Your task to perform on an android device: set default search engine in the chrome app Image 0: 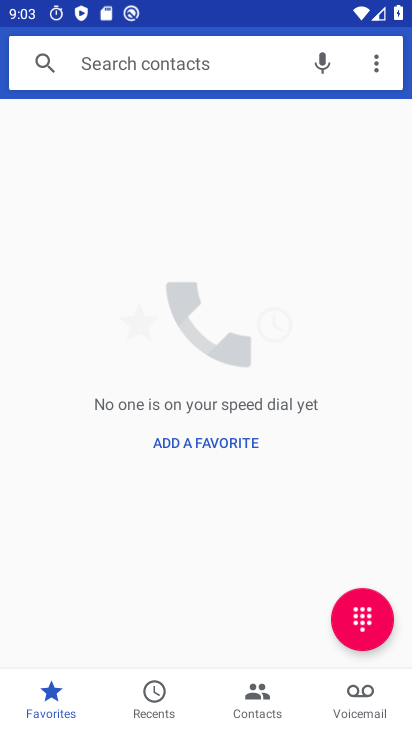
Step 0: press home button
Your task to perform on an android device: set default search engine in the chrome app Image 1: 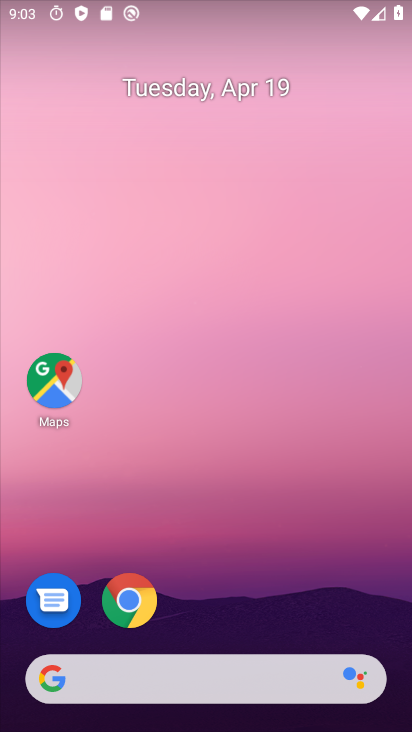
Step 1: click (139, 601)
Your task to perform on an android device: set default search engine in the chrome app Image 2: 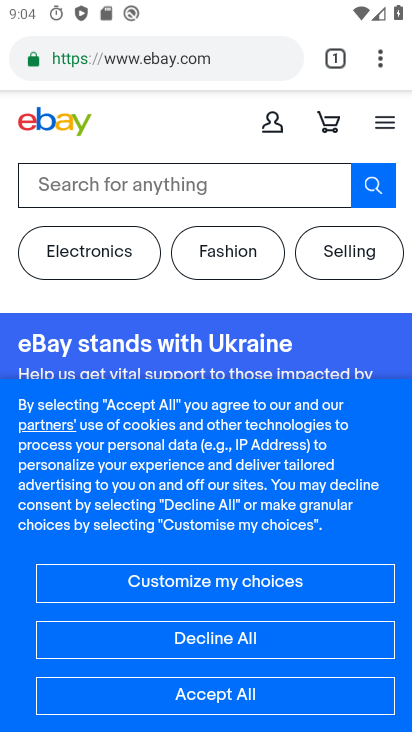
Step 2: click (377, 49)
Your task to perform on an android device: set default search engine in the chrome app Image 3: 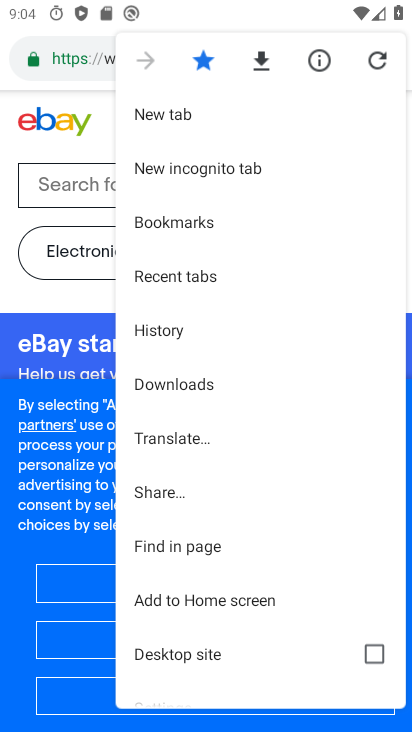
Step 3: drag from (169, 615) to (252, 125)
Your task to perform on an android device: set default search engine in the chrome app Image 4: 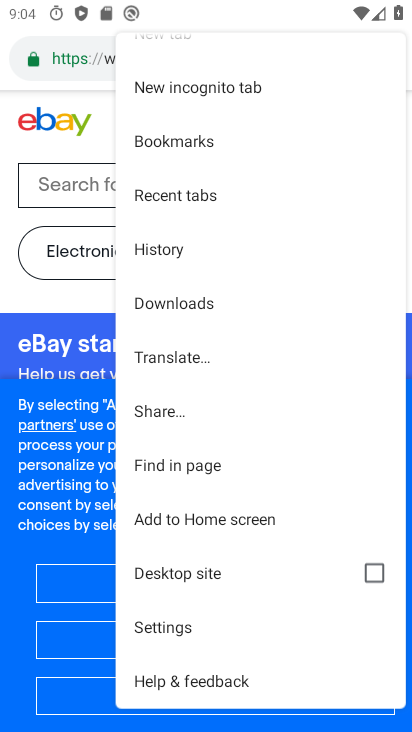
Step 4: click (179, 629)
Your task to perform on an android device: set default search engine in the chrome app Image 5: 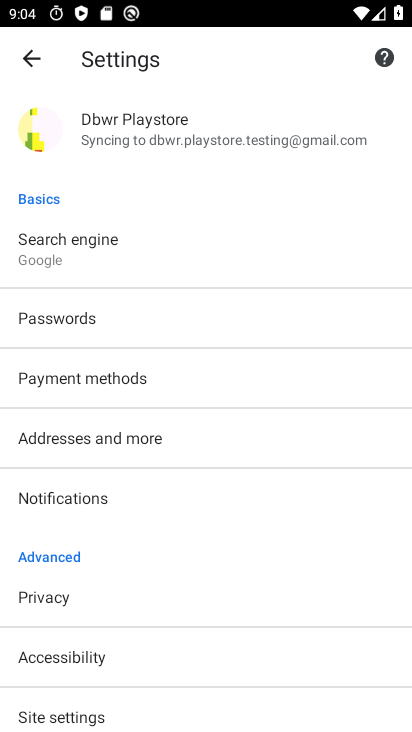
Step 5: click (103, 246)
Your task to perform on an android device: set default search engine in the chrome app Image 6: 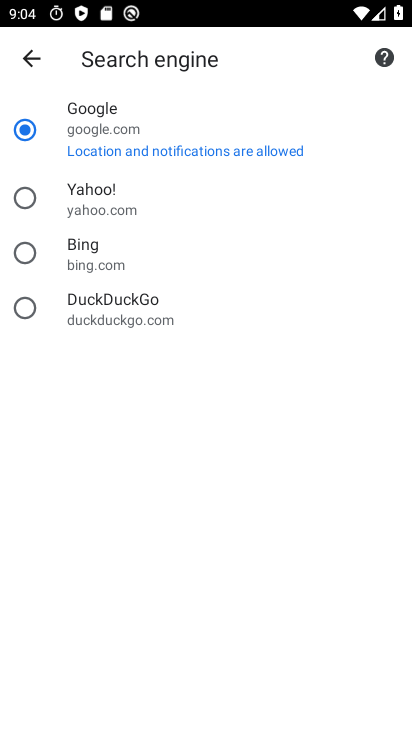
Step 6: click (30, 129)
Your task to perform on an android device: set default search engine in the chrome app Image 7: 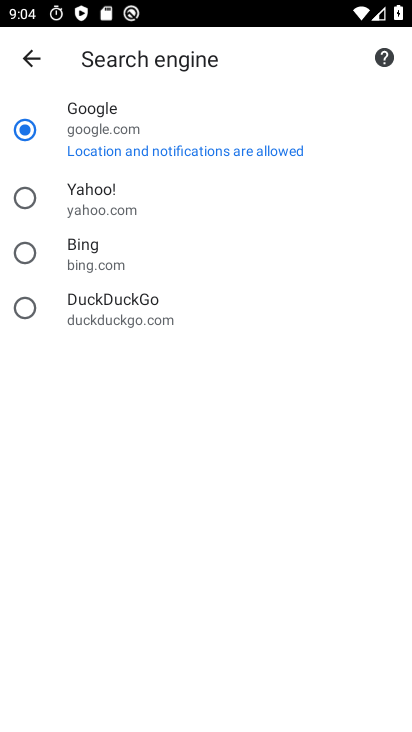
Step 7: task complete